Your task to perform on an android device: Open sound settings Image 0: 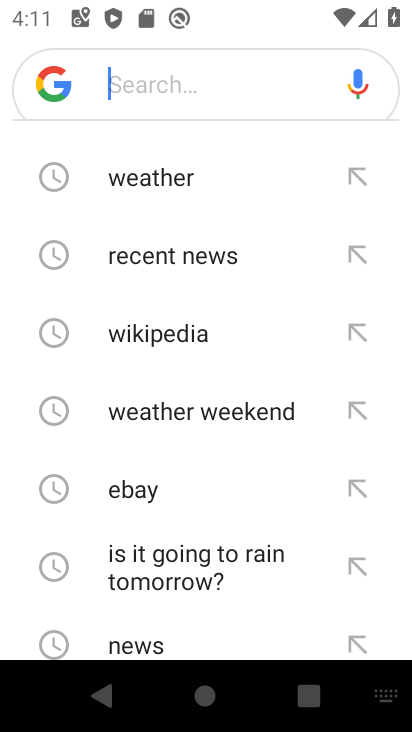
Step 0: press home button
Your task to perform on an android device: Open sound settings Image 1: 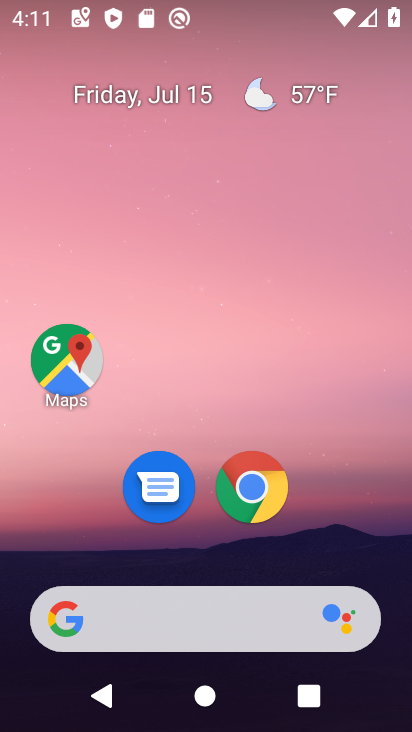
Step 1: drag from (235, 603) to (249, 117)
Your task to perform on an android device: Open sound settings Image 2: 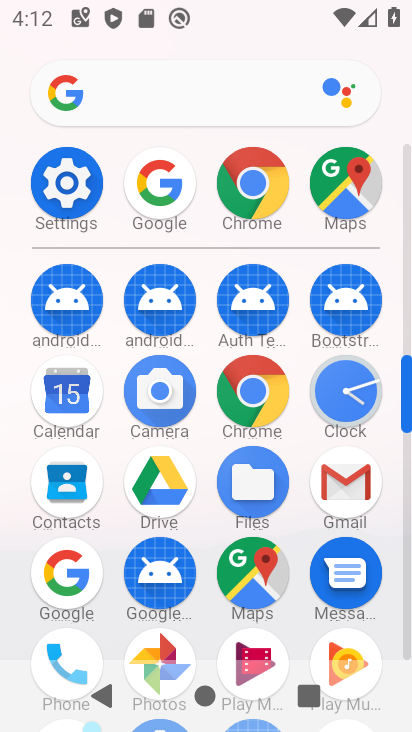
Step 2: click (88, 202)
Your task to perform on an android device: Open sound settings Image 3: 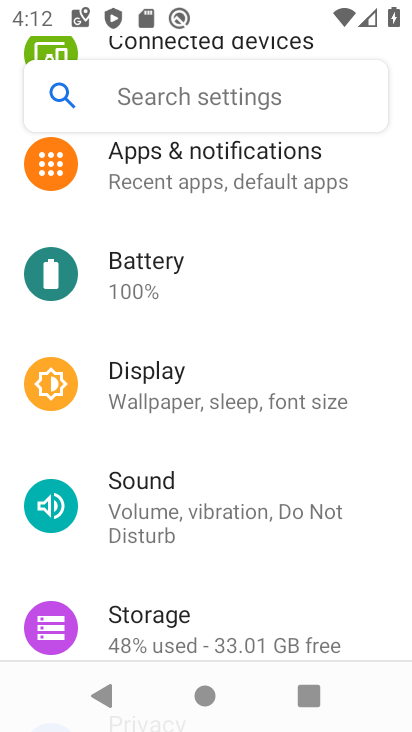
Step 3: click (169, 515)
Your task to perform on an android device: Open sound settings Image 4: 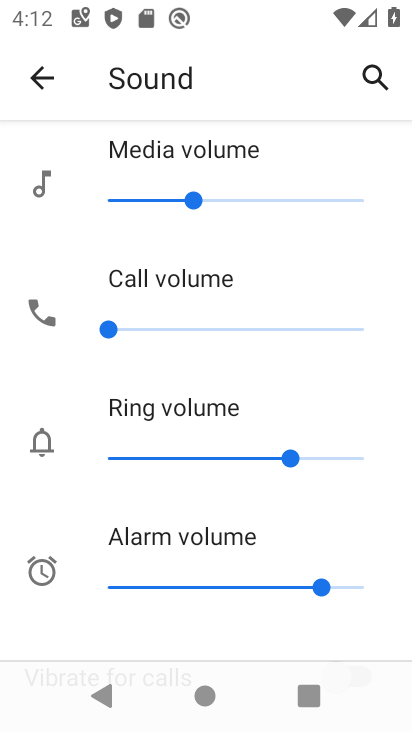
Step 4: task complete